Your task to perform on an android device: Open Amazon Image 0: 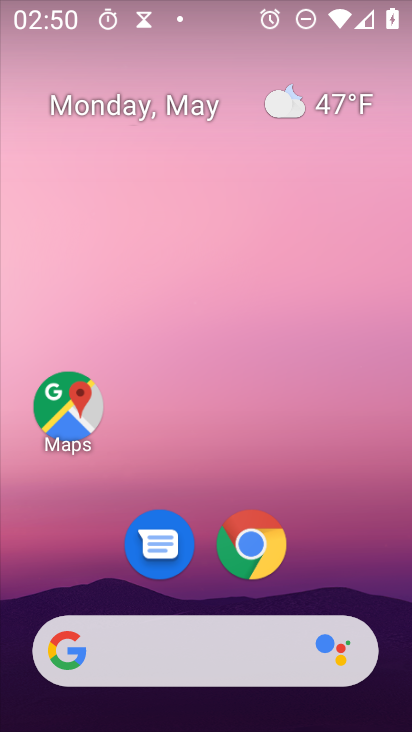
Step 0: drag from (347, 606) to (298, 9)
Your task to perform on an android device: Open Amazon Image 1: 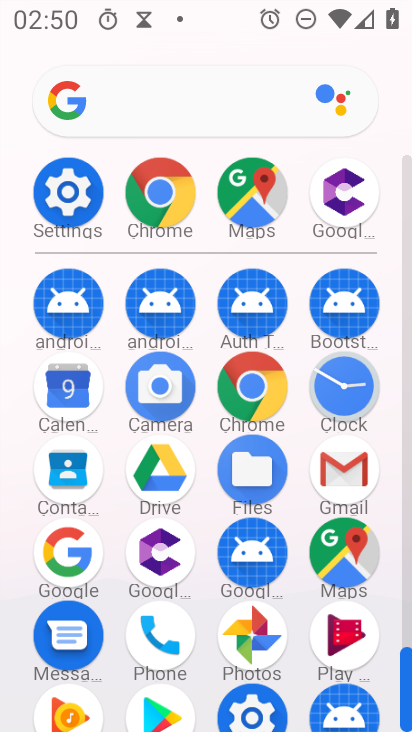
Step 1: click (258, 387)
Your task to perform on an android device: Open Amazon Image 2: 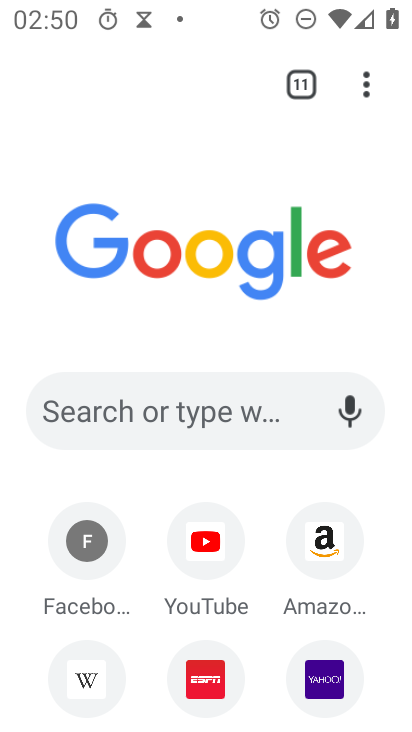
Step 2: click (324, 563)
Your task to perform on an android device: Open Amazon Image 3: 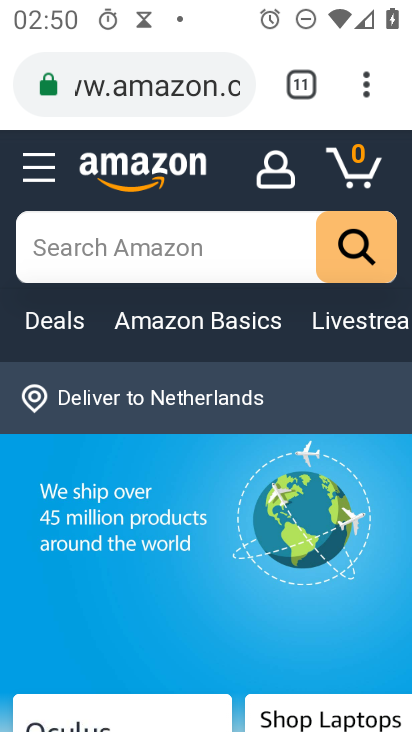
Step 3: task complete